Your task to perform on an android device: What's the weather going to be tomorrow? Image 0: 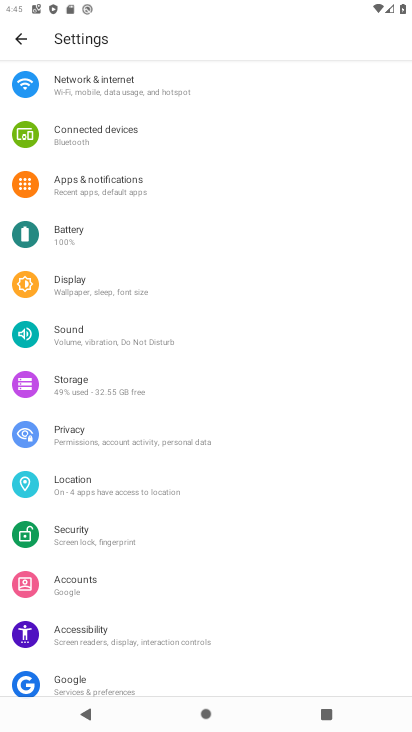
Step 0: press home button
Your task to perform on an android device: What's the weather going to be tomorrow? Image 1: 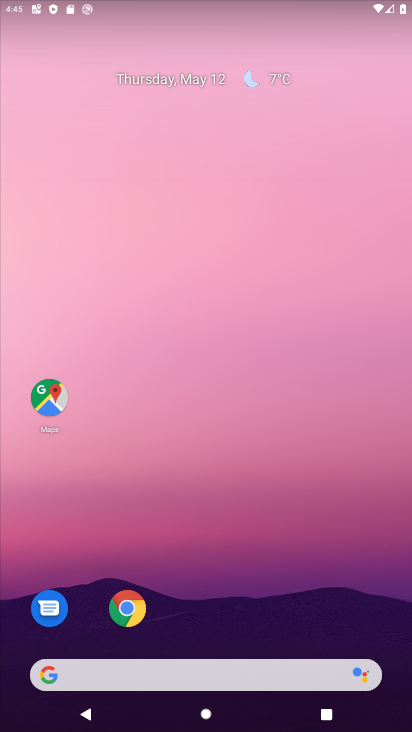
Step 1: click (279, 84)
Your task to perform on an android device: What's the weather going to be tomorrow? Image 2: 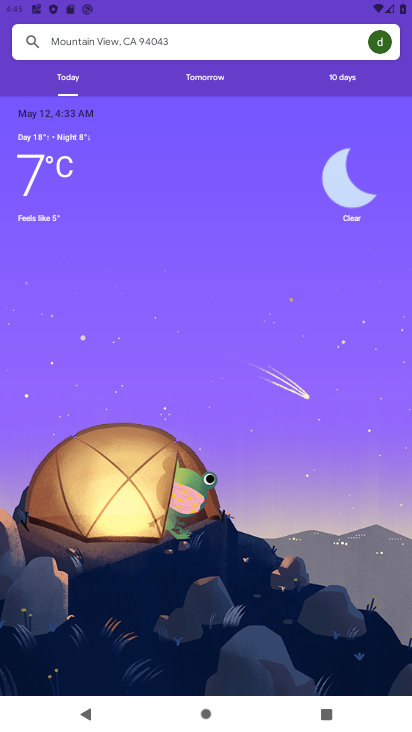
Step 2: click (244, 90)
Your task to perform on an android device: What's the weather going to be tomorrow? Image 3: 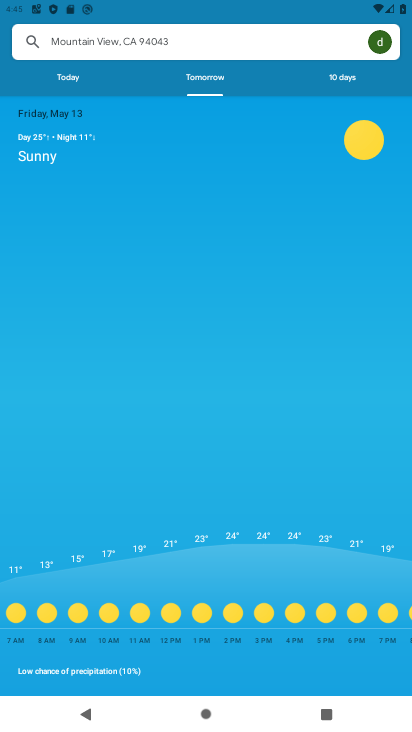
Step 3: task complete